Your task to perform on an android device: Add acer predator to the cart on target.com Image 0: 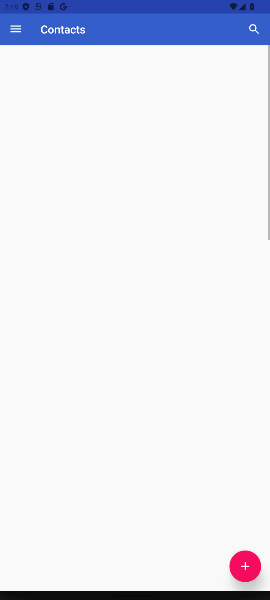
Step 0: press home button
Your task to perform on an android device: Add acer predator to the cart on target.com Image 1: 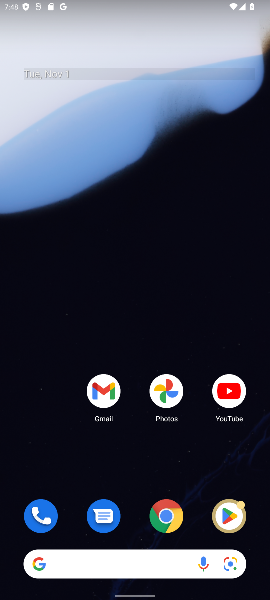
Step 1: drag from (136, 494) to (193, 84)
Your task to perform on an android device: Add acer predator to the cart on target.com Image 2: 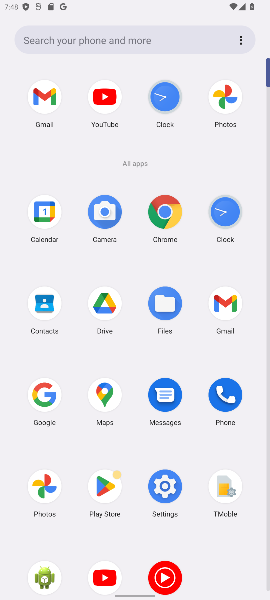
Step 2: click (162, 208)
Your task to perform on an android device: Add acer predator to the cart on target.com Image 3: 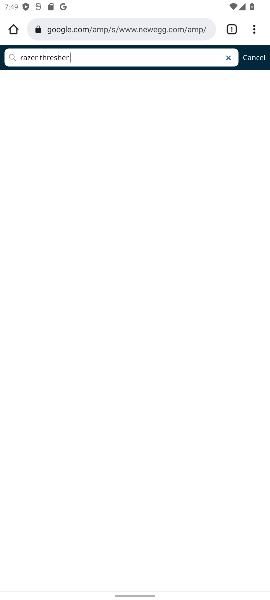
Step 3: click (91, 28)
Your task to perform on an android device: Add acer predator to the cart on target.com Image 4: 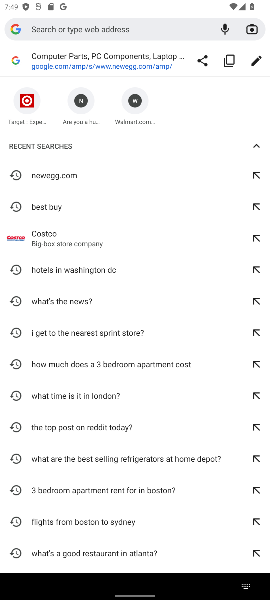
Step 4: type "target.com"
Your task to perform on an android device: Add acer predator to the cart on target.com Image 5: 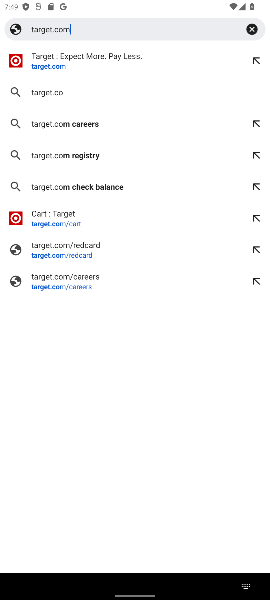
Step 5: type ""
Your task to perform on an android device: Add acer predator to the cart on target.com Image 6: 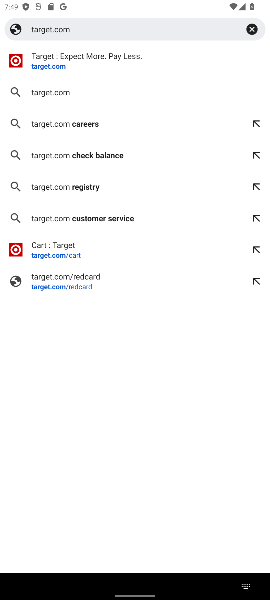
Step 6: click (75, 61)
Your task to perform on an android device: Add acer predator to the cart on target.com Image 7: 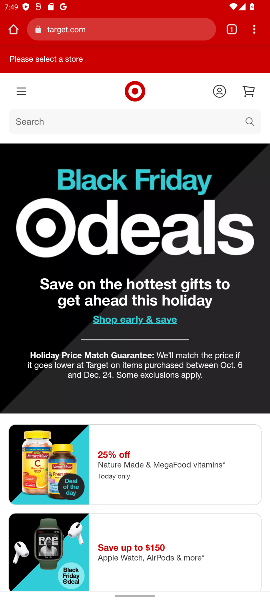
Step 7: click (49, 121)
Your task to perform on an android device: Add acer predator to the cart on target.com Image 8: 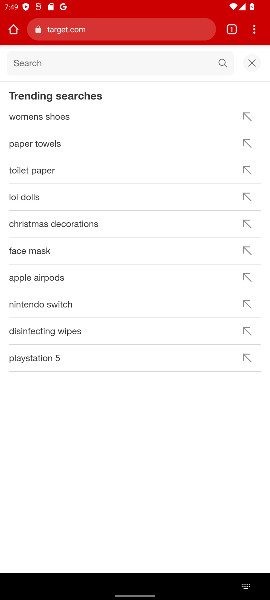
Step 8: type "acer predator"
Your task to perform on an android device: Add acer predator to the cart on target.com Image 9: 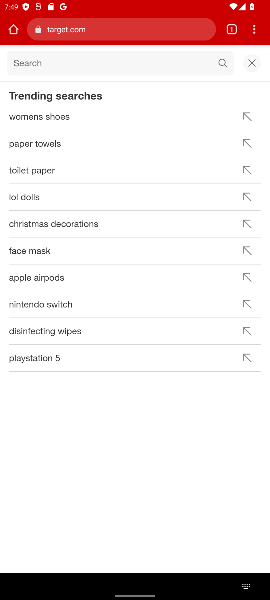
Step 9: type ""
Your task to perform on an android device: Add acer predator to the cart on target.com Image 10: 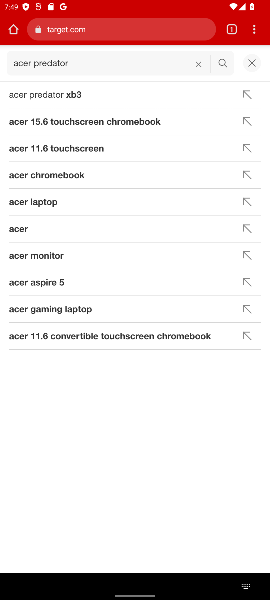
Step 10: click (46, 92)
Your task to perform on an android device: Add acer predator to the cart on target.com Image 11: 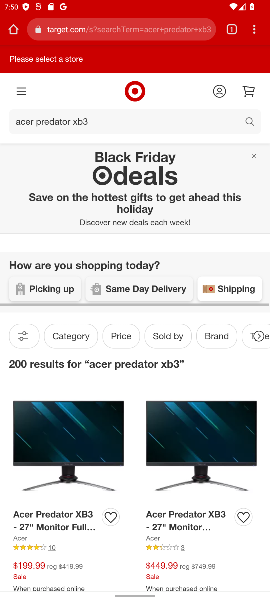
Step 11: click (53, 513)
Your task to perform on an android device: Add acer predator to the cart on target.com Image 12: 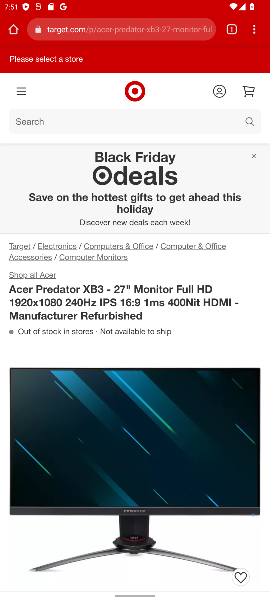
Step 12: drag from (176, 312) to (191, 68)
Your task to perform on an android device: Add acer predator to the cart on target.com Image 13: 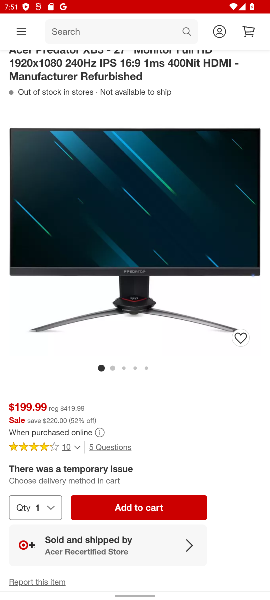
Step 13: click (148, 504)
Your task to perform on an android device: Add acer predator to the cart on target.com Image 14: 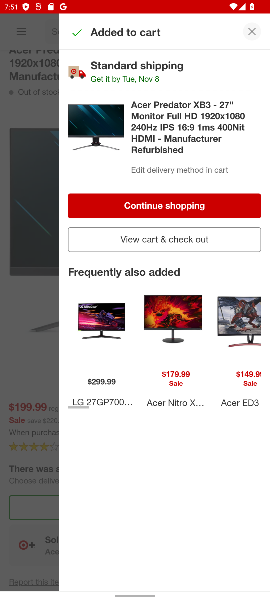
Step 14: click (253, 27)
Your task to perform on an android device: Add acer predator to the cart on target.com Image 15: 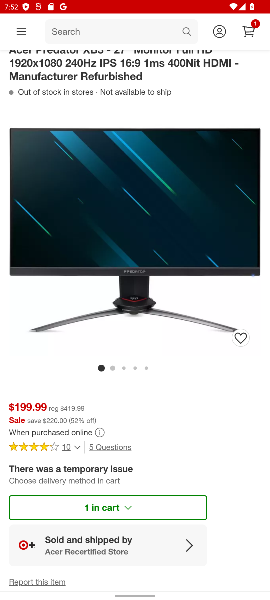
Step 15: click (252, 25)
Your task to perform on an android device: Add acer predator to the cart on target.com Image 16: 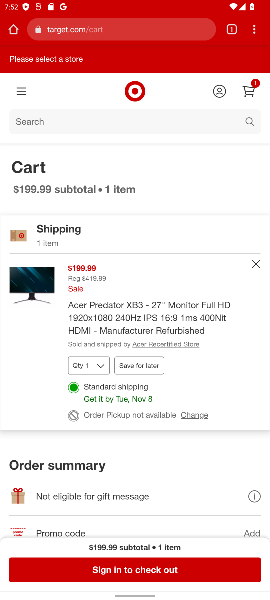
Step 16: task complete